Your task to perform on an android device: Open Youtube and go to the subscriptions tab Image 0: 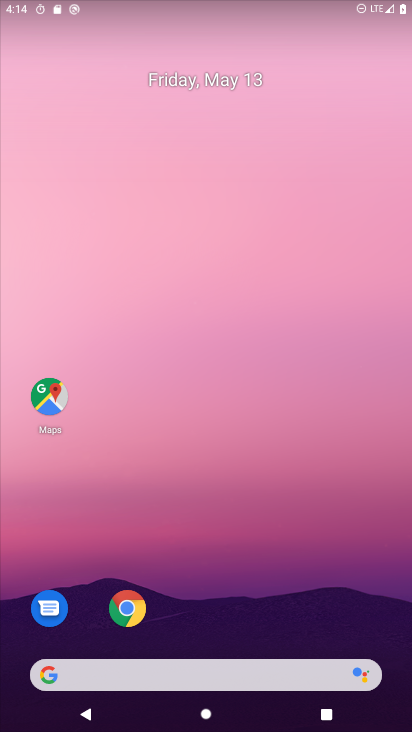
Step 0: press home button
Your task to perform on an android device: Open Youtube and go to the subscriptions tab Image 1: 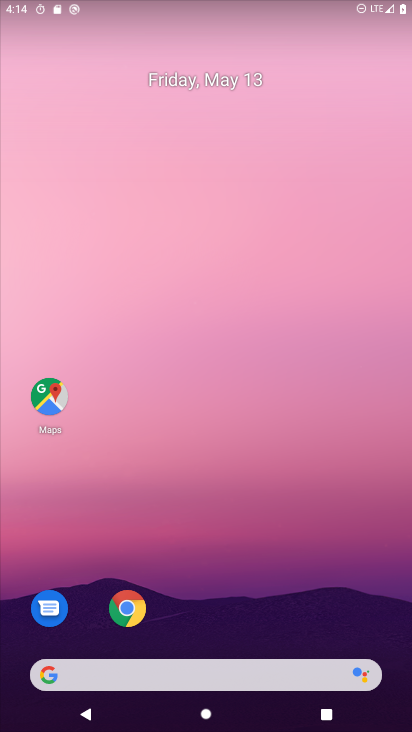
Step 1: drag from (266, 172) to (273, 84)
Your task to perform on an android device: Open Youtube and go to the subscriptions tab Image 2: 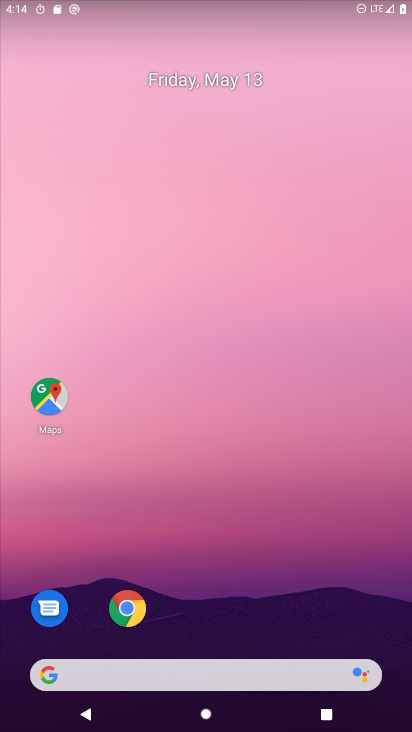
Step 2: drag from (316, 569) to (283, 28)
Your task to perform on an android device: Open Youtube and go to the subscriptions tab Image 3: 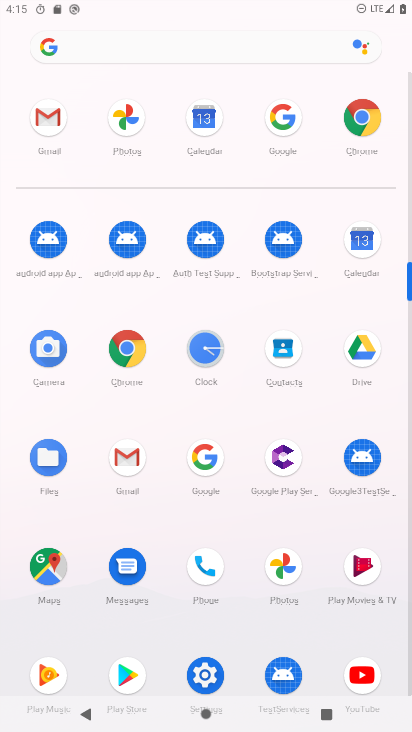
Step 3: click (369, 674)
Your task to perform on an android device: Open Youtube and go to the subscriptions tab Image 4: 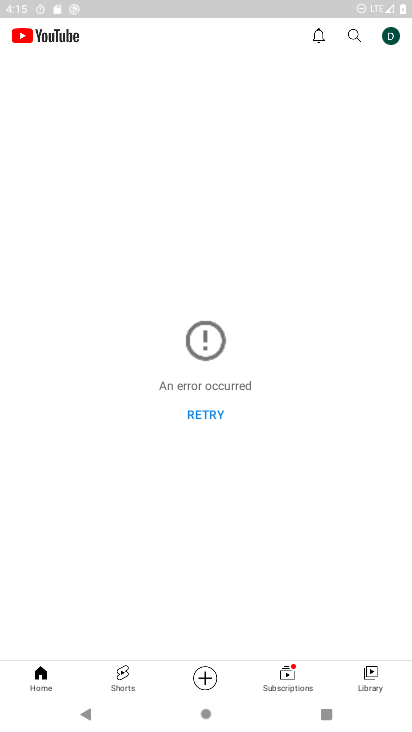
Step 4: click (303, 668)
Your task to perform on an android device: Open Youtube and go to the subscriptions tab Image 5: 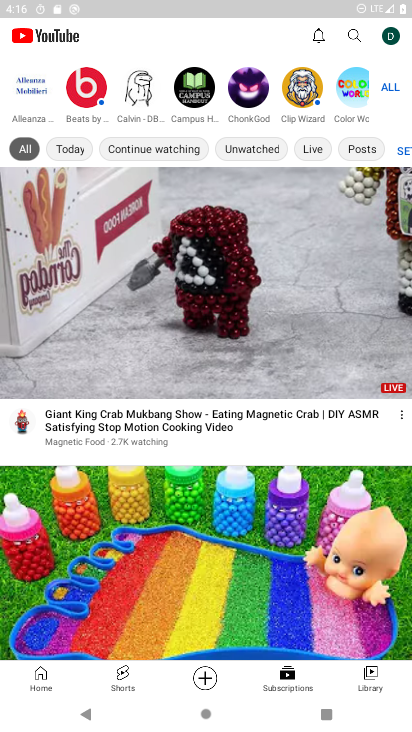
Step 5: task complete